Your task to perform on an android device: What's the weather today? Image 0: 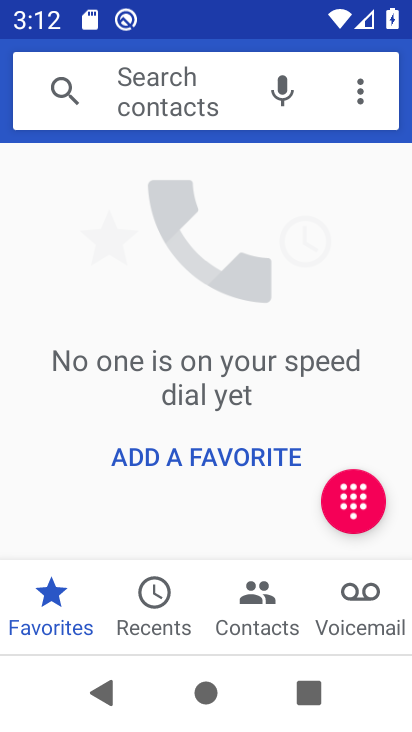
Step 0: drag from (275, 526) to (264, 379)
Your task to perform on an android device: What's the weather today? Image 1: 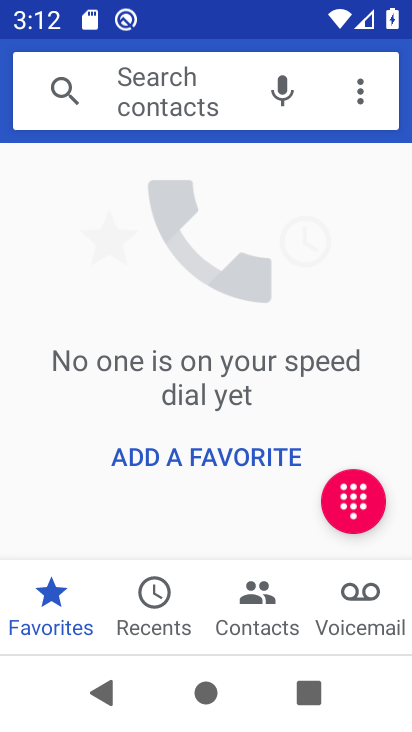
Step 1: press home button
Your task to perform on an android device: What's the weather today? Image 2: 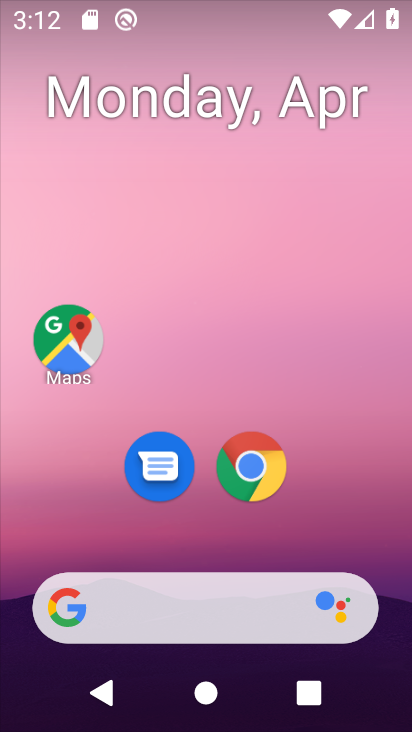
Step 2: drag from (205, 330) to (369, 339)
Your task to perform on an android device: What's the weather today? Image 3: 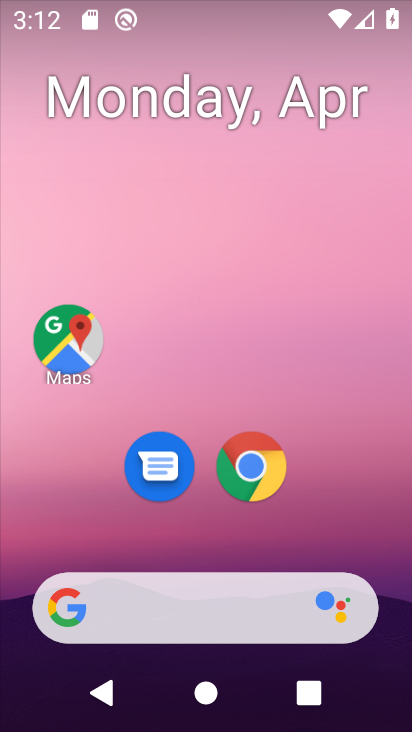
Step 3: drag from (3, 233) to (411, 305)
Your task to perform on an android device: What's the weather today? Image 4: 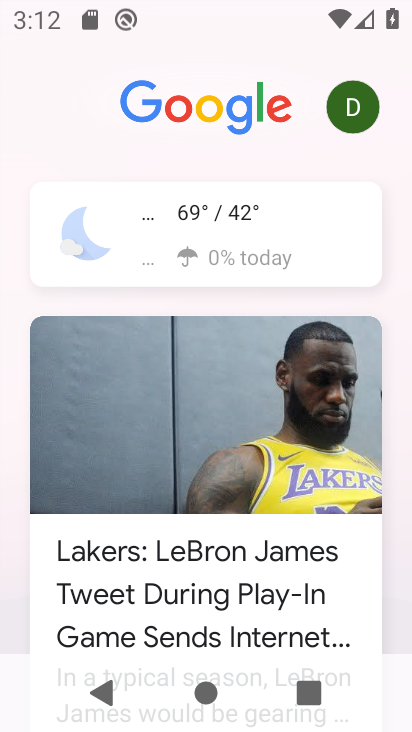
Step 4: click (240, 233)
Your task to perform on an android device: What's the weather today? Image 5: 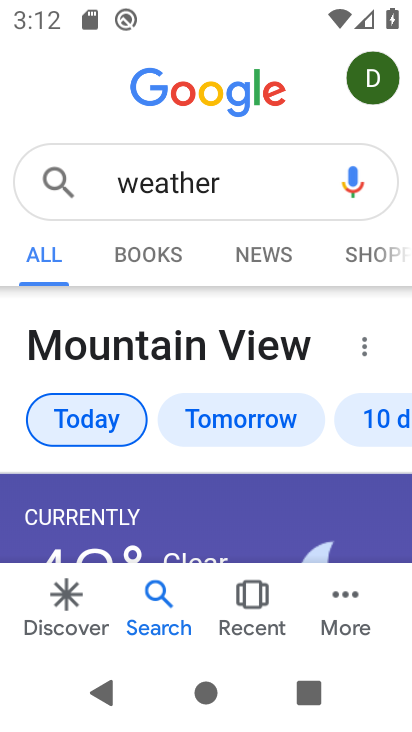
Step 5: task complete